Your task to perform on an android device: Go to battery settings Image 0: 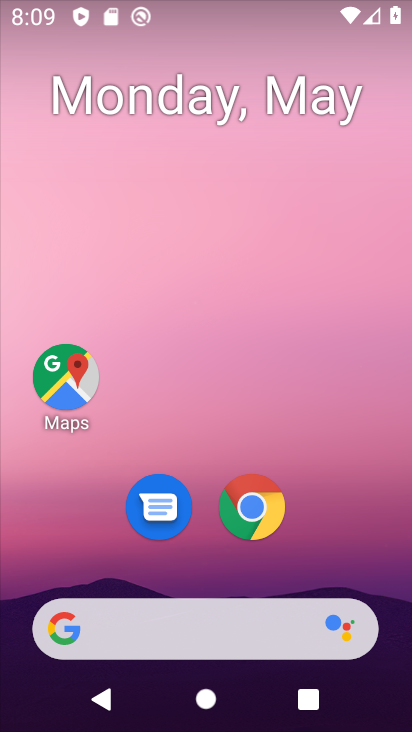
Step 0: drag from (224, 562) to (227, 168)
Your task to perform on an android device: Go to battery settings Image 1: 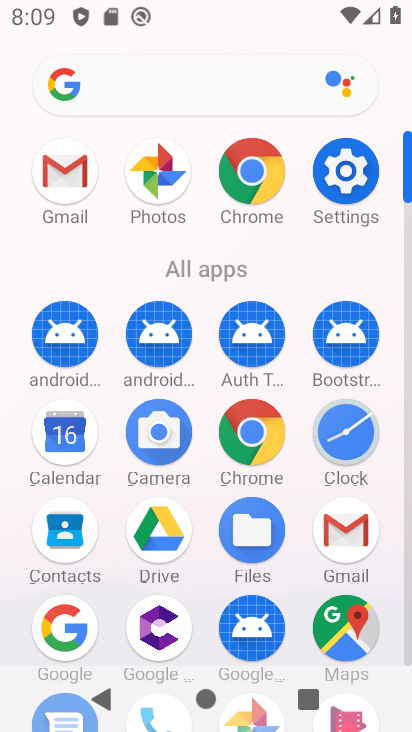
Step 1: click (362, 182)
Your task to perform on an android device: Go to battery settings Image 2: 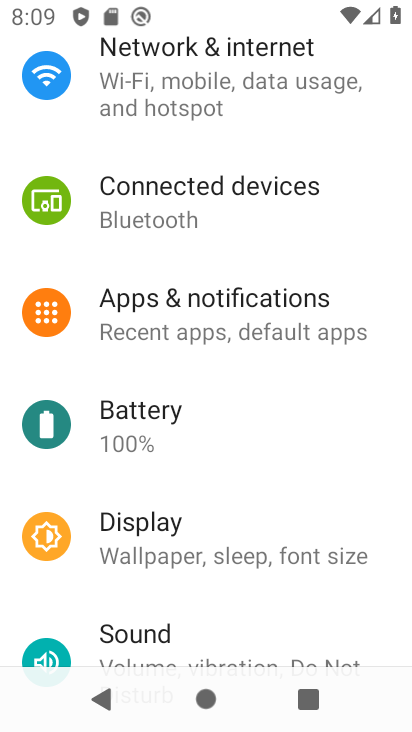
Step 2: click (167, 429)
Your task to perform on an android device: Go to battery settings Image 3: 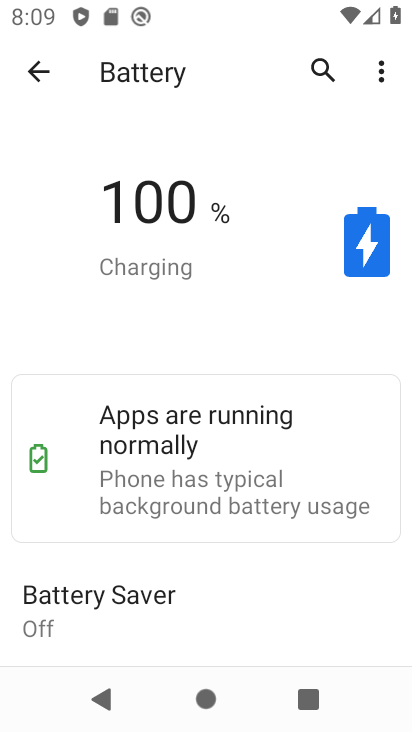
Step 3: task complete